Your task to perform on an android device: turn off data saver in the chrome app Image 0: 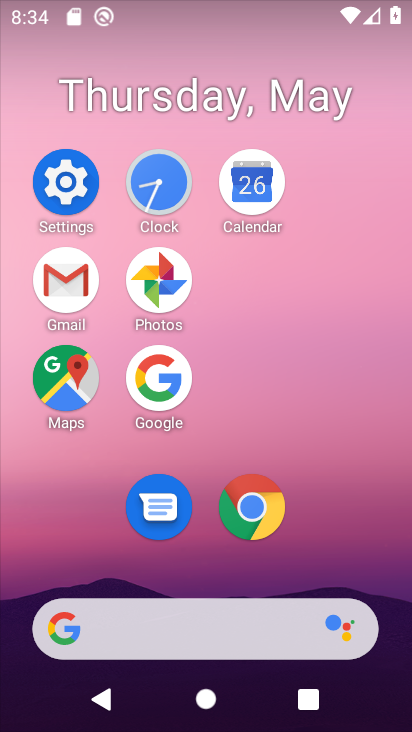
Step 0: click (279, 497)
Your task to perform on an android device: turn off data saver in the chrome app Image 1: 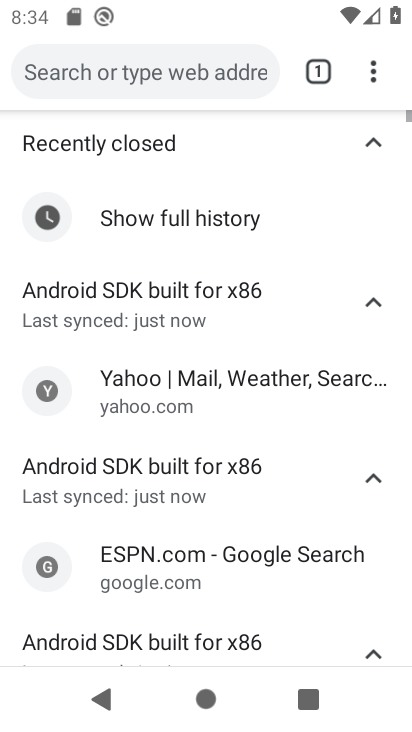
Step 1: click (367, 74)
Your task to perform on an android device: turn off data saver in the chrome app Image 2: 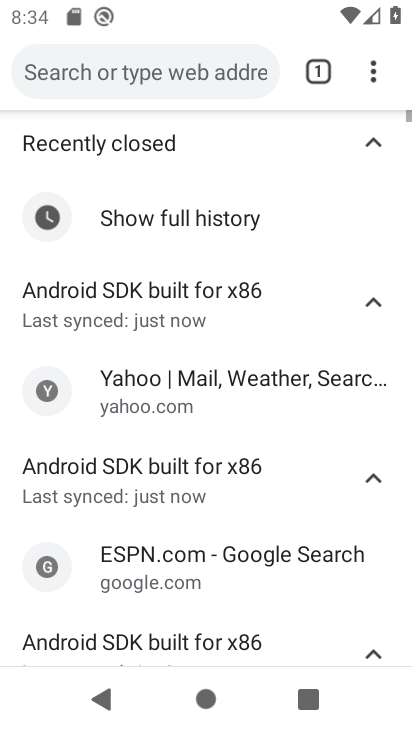
Step 2: click (382, 62)
Your task to perform on an android device: turn off data saver in the chrome app Image 3: 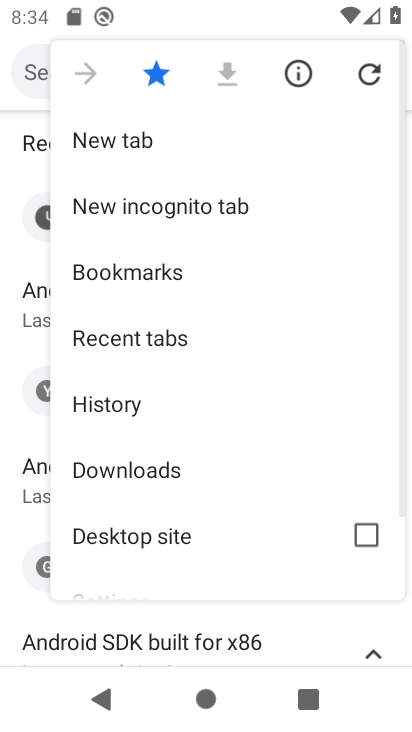
Step 3: drag from (187, 248) to (208, 79)
Your task to perform on an android device: turn off data saver in the chrome app Image 4: 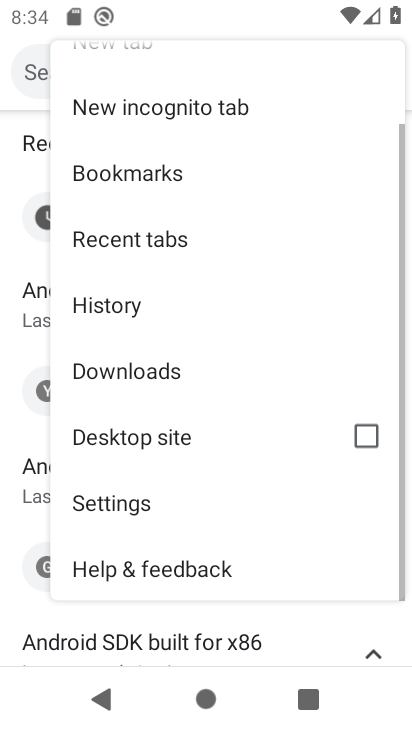
Step 4: click (140, 508)
Your task to perform on an android device: turn off data saver in the chrome app Image 5: 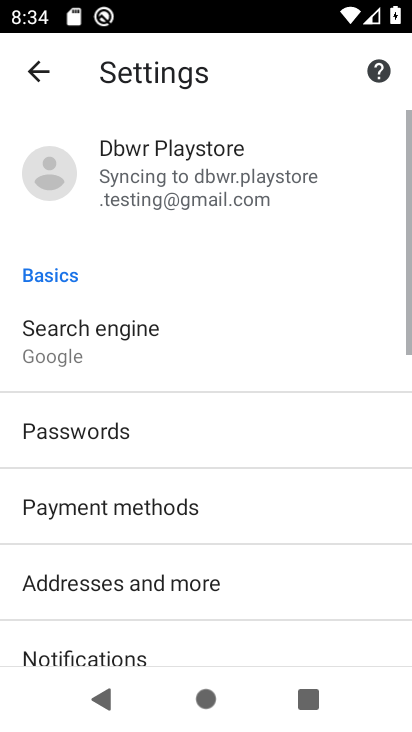
Step 5: drag from (140, 505) to (203, 70)
Your task to perform on an android device: turn off data saver in the chrome app Image 6: 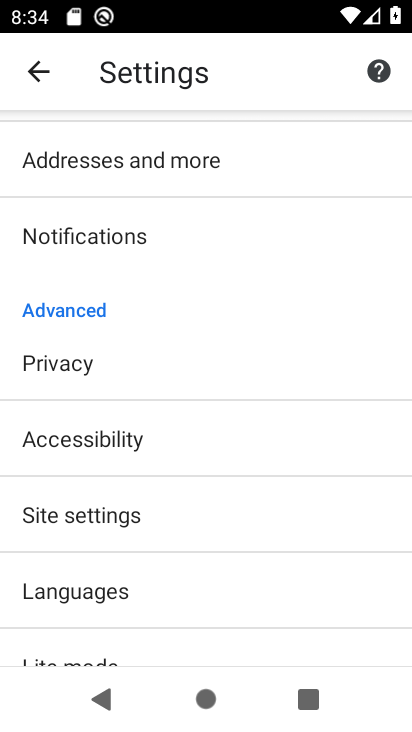
Step 6: drag from (138, 521) to (168, 112)
Your task to perform on an android device: turn off data saver in the chrome app Image 7: 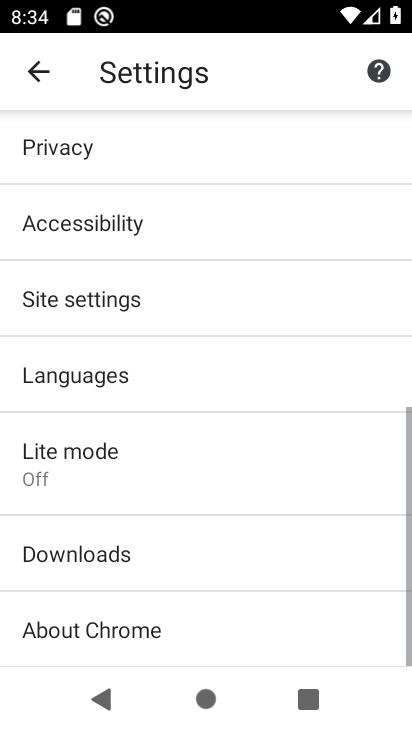
Step 7: drag from (137, 463) to (182, 226)
Your task to perform on an android device: turn off data saver in the chrome app Image 8: 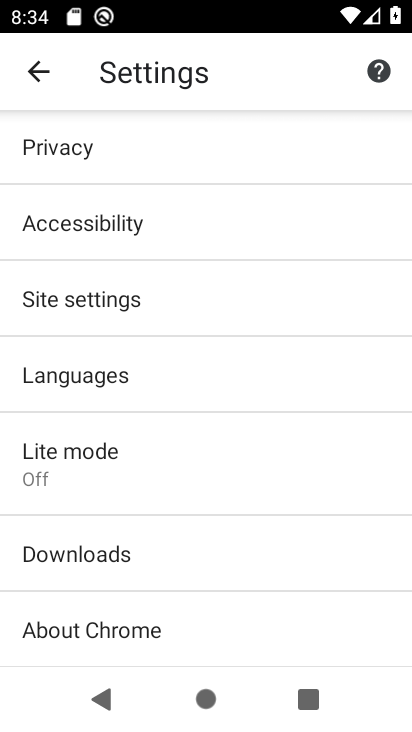
Step 8: click (117, 452)
Your task to perform on an android device: turn off data saver in the chrome app Image 9: 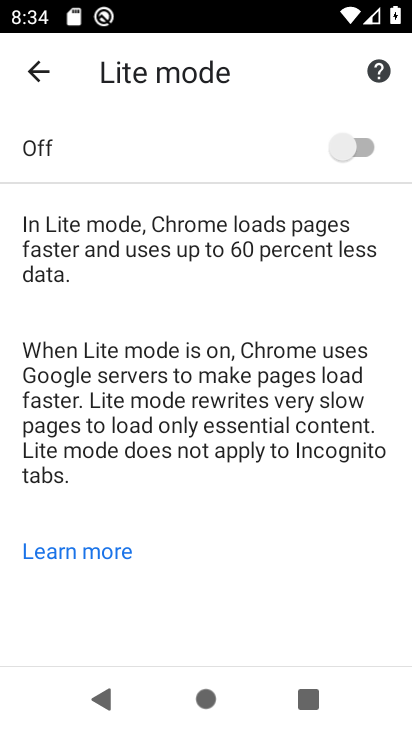
Step 9: task complete